Your task to perform on an android device: Search for the best rated electric lawnmower on Home Depot Image 0: 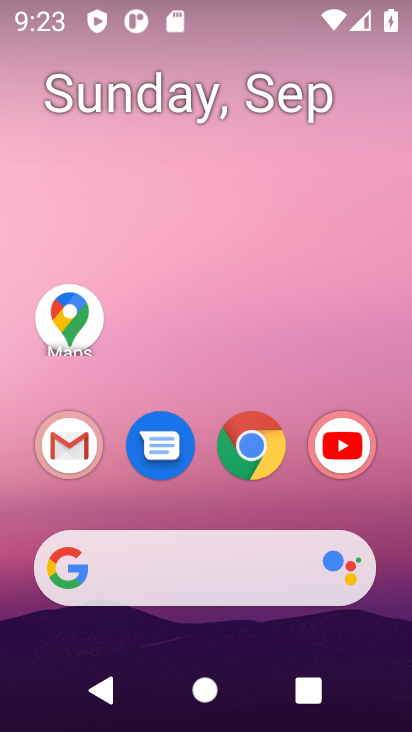
Step 0: click (67, 257)
Your task to perform on an android device: Search for the best rated electric lawnmower on Home Depot Image 1: 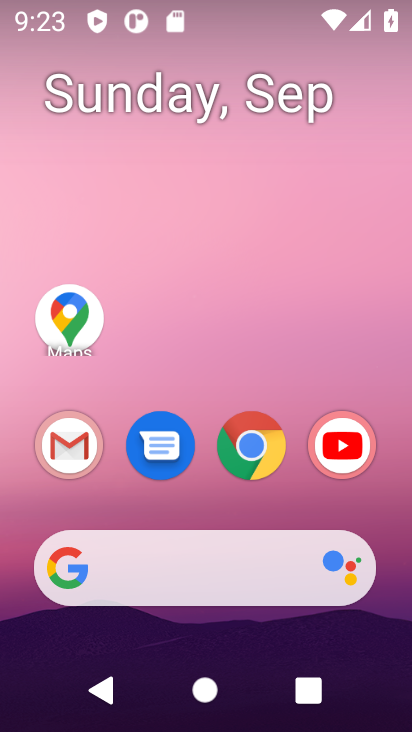
Step 1: drag from (205, 613) to (254, 68)
Your task to perform on an android device: Search for the best rated electric lawnmower on Home Depot Image 2: 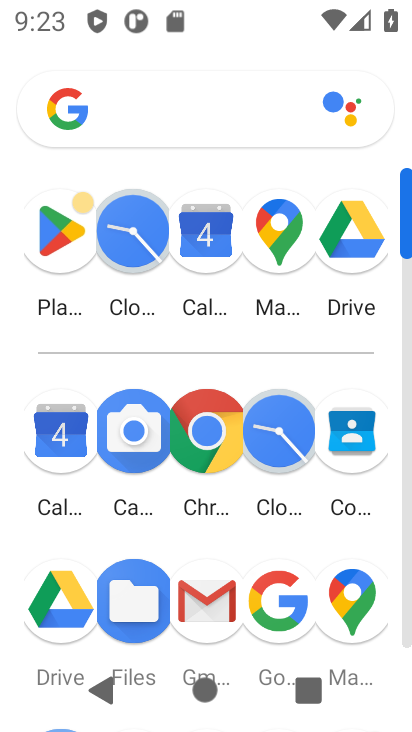
Step 2: click (211, 447)
Your task to perform on an android device: Search for the best rated electric lawnmower on Home Depot Image 3: 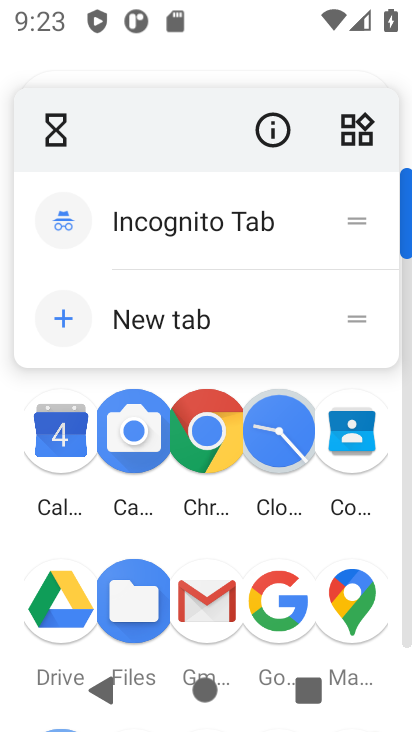
Step 3: click (211, 439)
Your task to perform on an android device: Search for the best rated electric lawnmower on Home Depot Image 4: 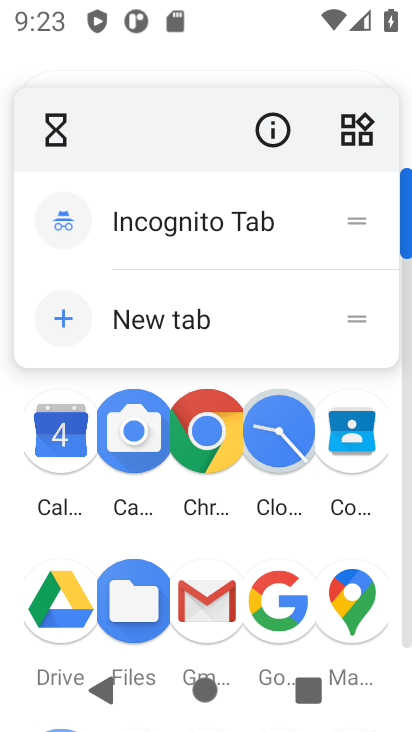
Step 4: click (216, 428)
Your task to perform on an android device: Search for the best rated electric lawnmower on Home Depot Image 5: 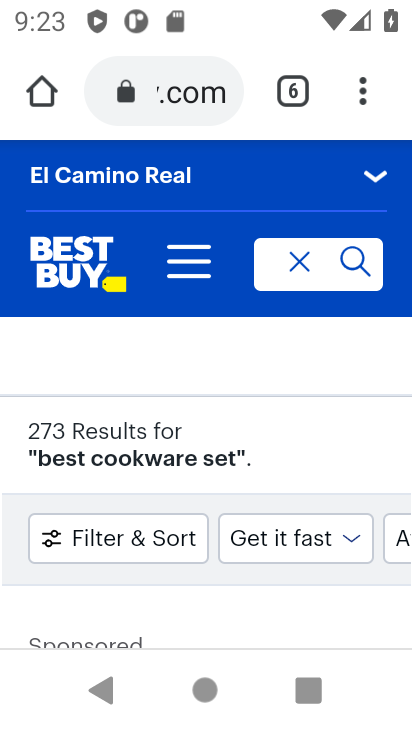
Step 5: click (197, 94)
Your task to perform on an android device: Search for the best rated electric lawnmower on Home Depot Image 6: 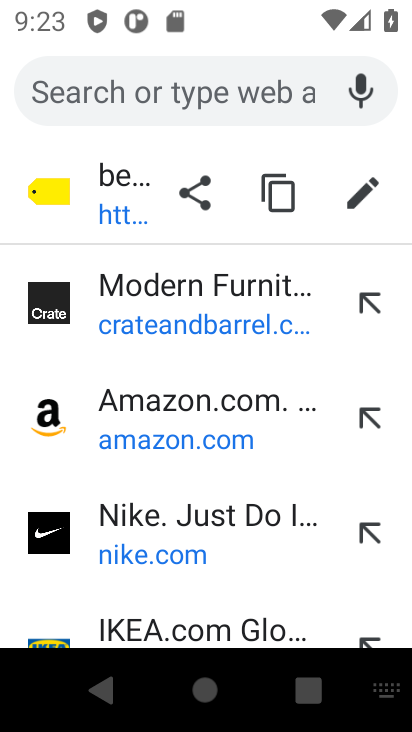
Step 6: type "Home Depot"
Your task to perform on an android device: Search for the best rated electric lawnmower on Home Depot Image 7: 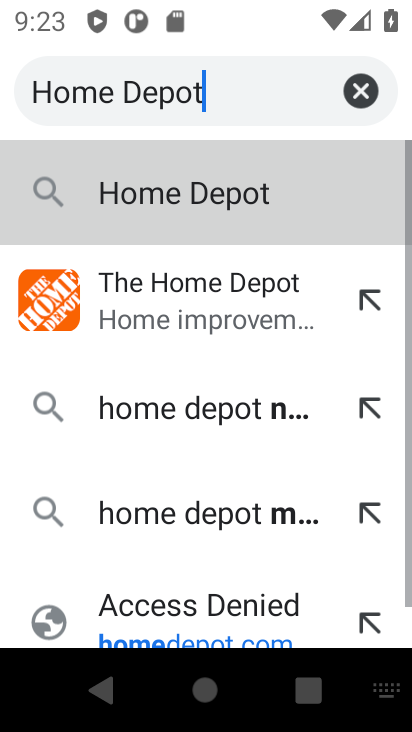
Step 7: press enter
Your task to perform on an android device: Search for the best rated electric lawnmower on Home Depot Image 8: 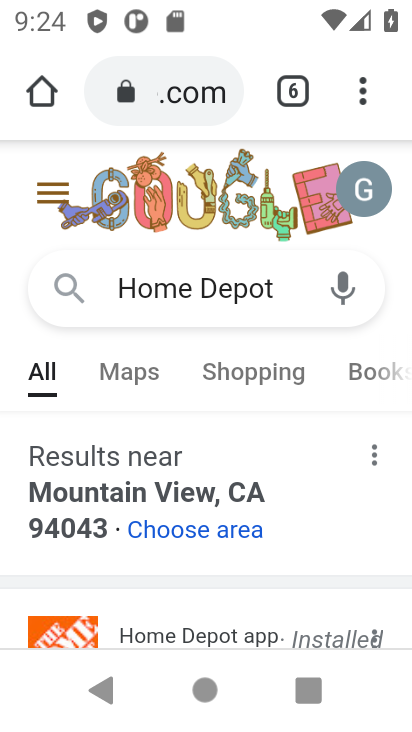
Step 8: click (182, 348)
Your task to perform on an android device: Search for the best rated electric lawnmower on Home Depot Image 9: 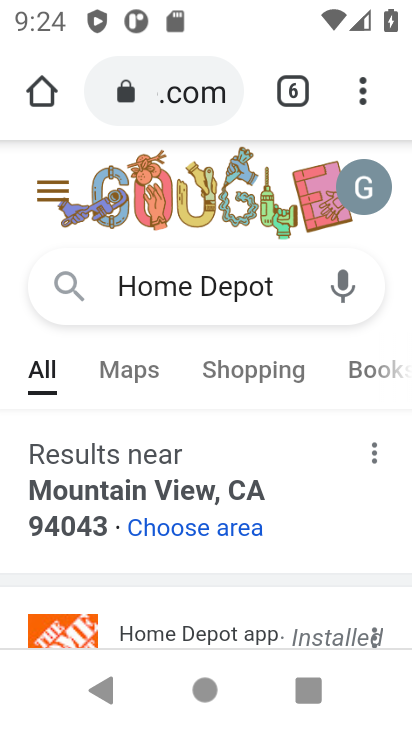
Step 9: drag from (247, 536) to (289, 308)
Your task to perform on an android device: Search for the best rated electric lawnmower on Home Depot Image 10: 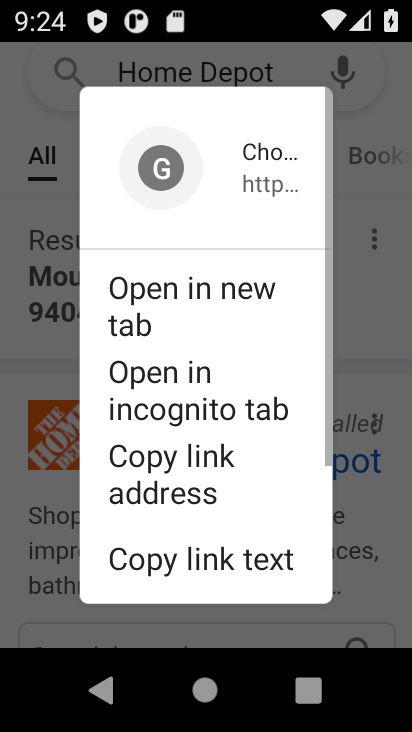
Step 10: click (366, 538)
Your task to perform on an android device: Search for the best rated electric lawnmower on Home Depot Image 11: 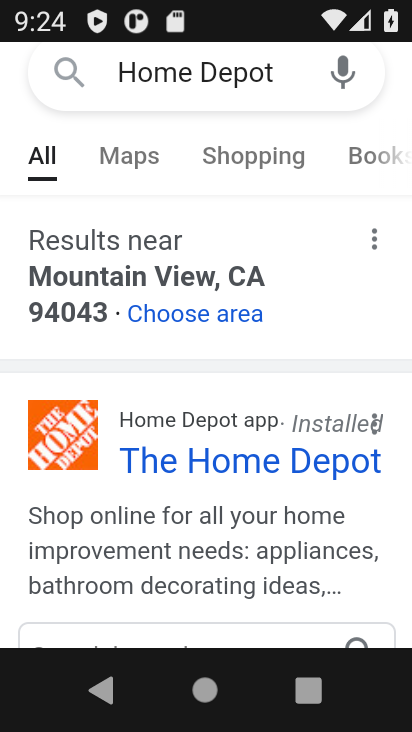
Step 11: drag from (157, 616) to (189, 401)
Your task to perform on an android device: Search for the best rated electric lawnmower on Home Depot Image 12: 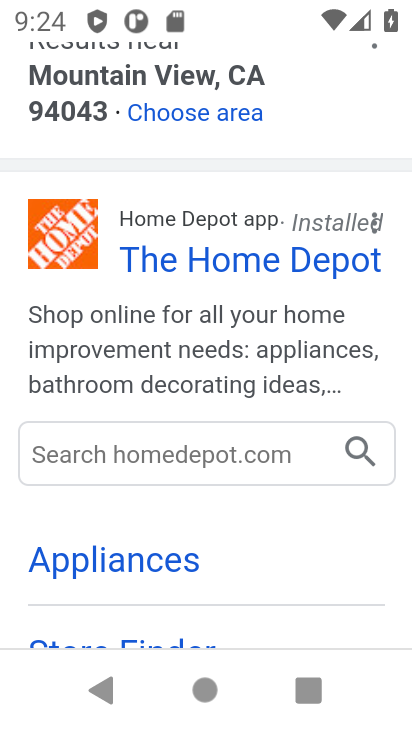
Step 12: click (219, 265)
Your task to perform on an android device: Search for the best rated electric lawnmower on Home Depot Image 13: 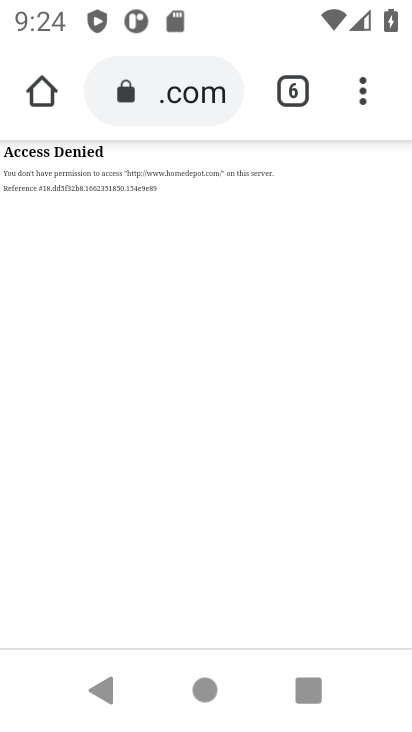
Step 13: task complete